Your task to perform on an android device: open app "LinkedIn" (install if not already installed) Image 0: 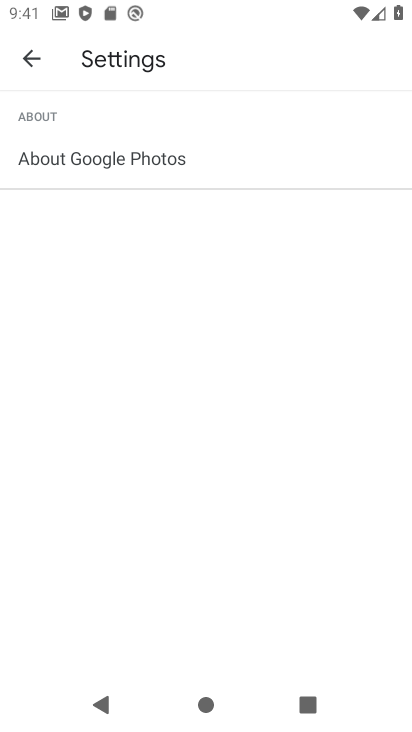
Step 0: press back button
Your task to perform on an android device: open app "LinkedIn" (install if not already installed) Image 1: 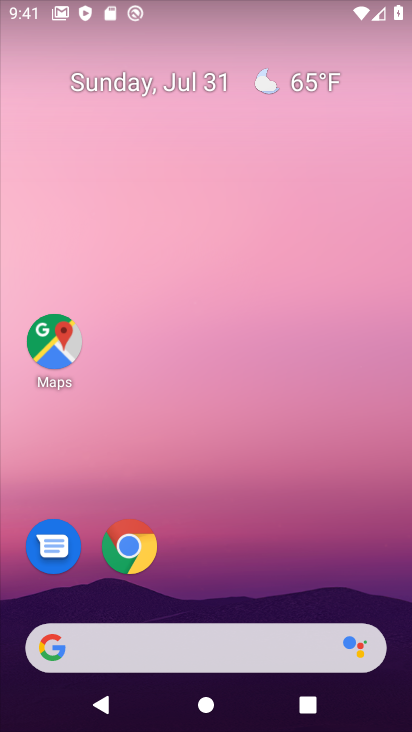
Step 1: drag from (208, 637) to (267, 3)
Your task to perform on an android device: open app "LinkedIn" (install if not already installed) Image 2: 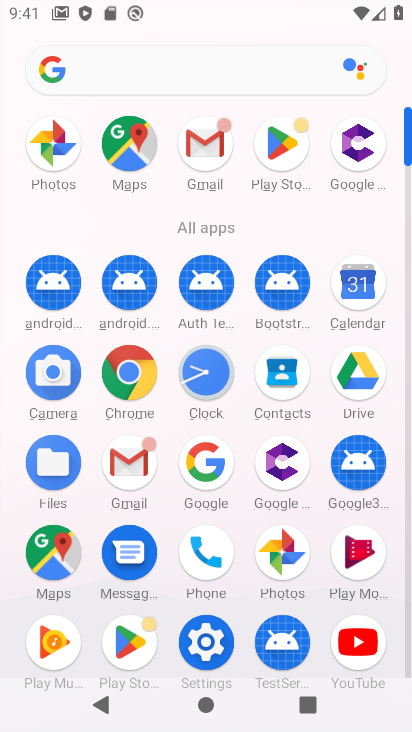
Step 2: click (279, 139)
Your task to perform on an android device: open app "LinkedIn" (install if not already installed) Image 3: 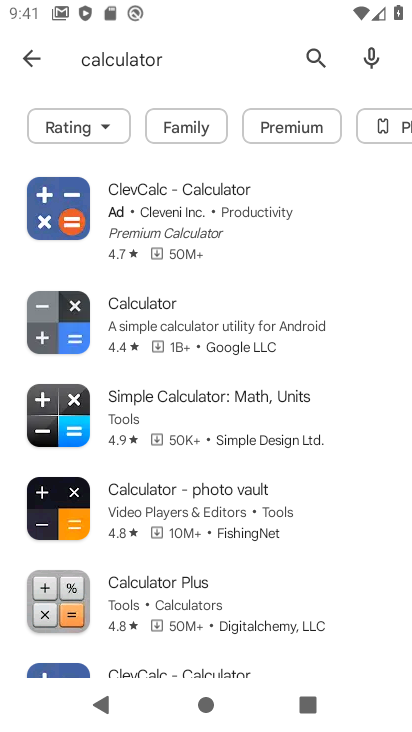
Step 3: click (323, 54)
Your task to perform on an android device: open app "LinkedIn" (install if not already installed) Image 4: 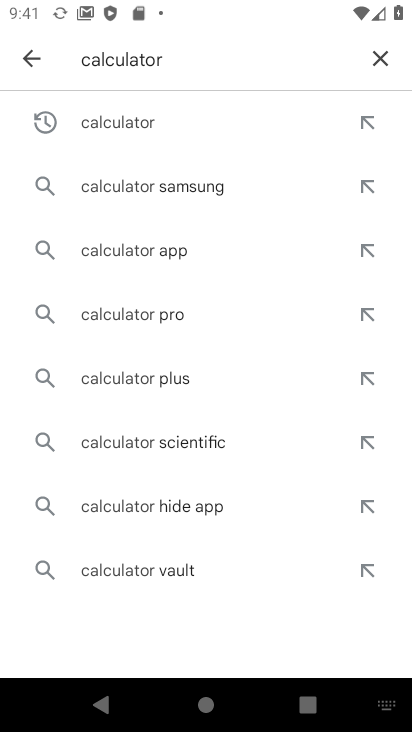
Step 4: click (382, 58)
Your task to perform on an android device: open app "LinkedIn" (install if not already installed) Image 5: 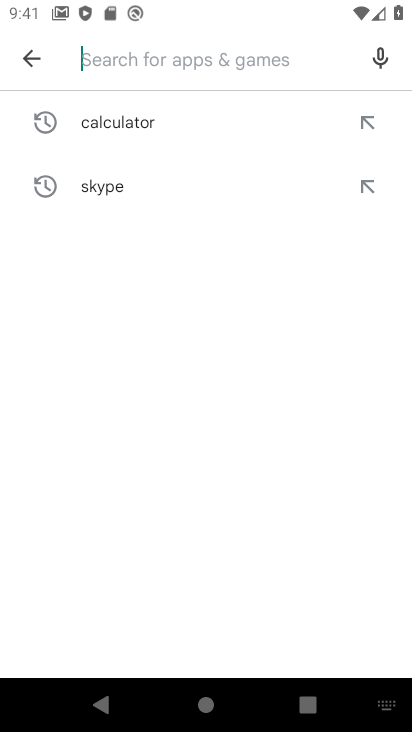
Step 5: click (142, 59)
Your task to perform on an android device: open app "LinkedIn" (install if not already installed) Image 6: 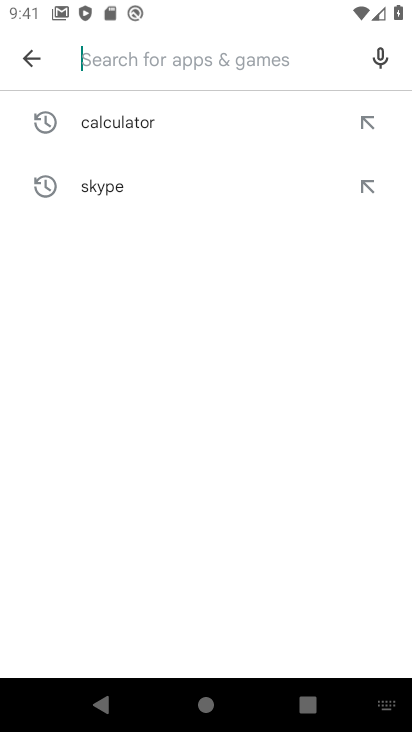
Step 6: type "linkedln"
Your task to perform on an android device: open app "LinkedIn" (install if not already installed) Image 7: 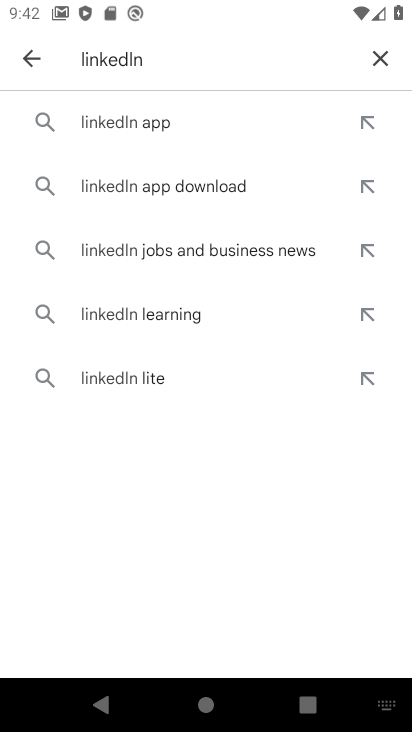
Step 7: click (169, 126)
Your task to perform on an android device: open app "LinkedIn" (install if not already installed) Image 8: 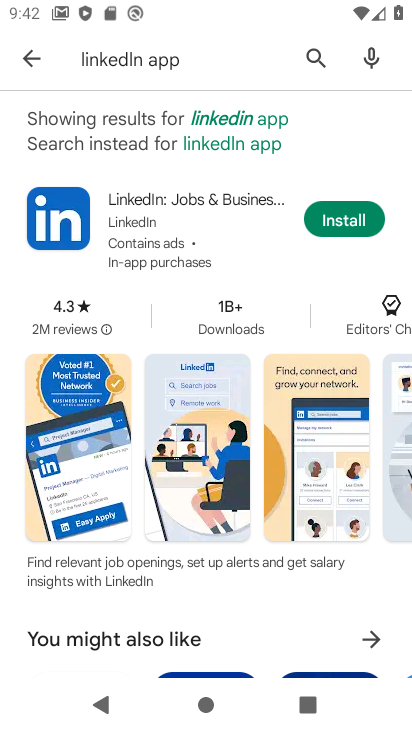
Step 8: click (349, 228)
Your task to perform on an android device: open app "LinkedIn" (install if not already installed) Image 9: 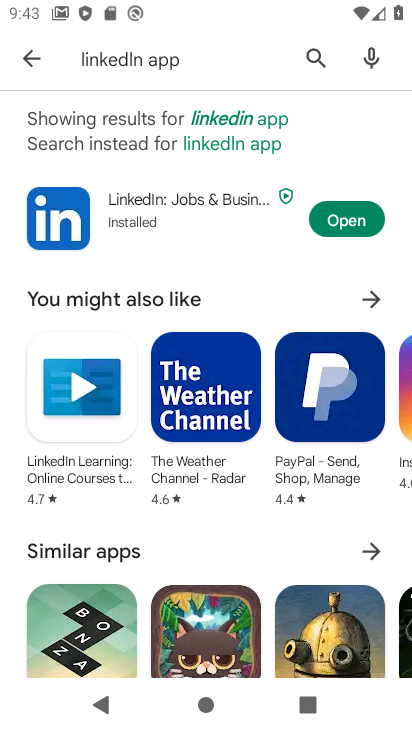
Step 9: click (337, 214)
Your task to perform on an android device: open app "LinkedIn" (install if not already installed) Image 10: 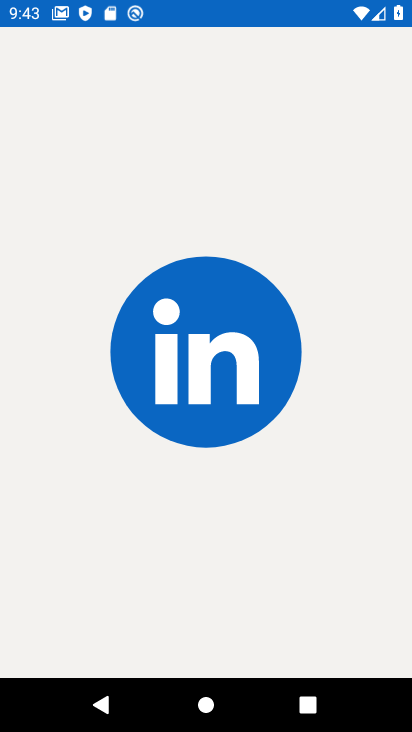
Step 10: task complete